Your task to perform on an android device: Open sound settings Image 0: 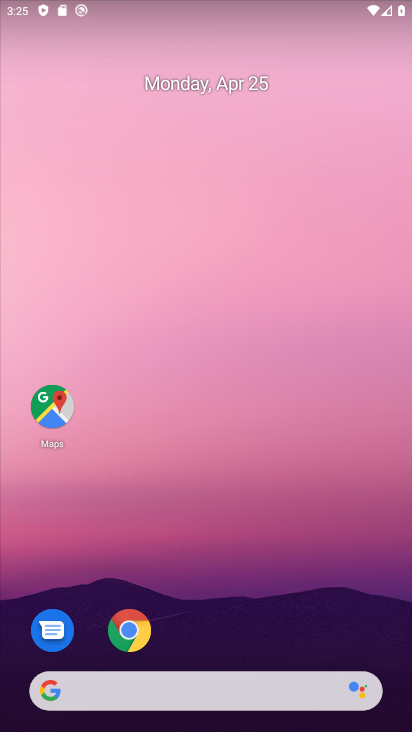
Step 0: drag from (206, 582) to (233, 103)
Your task to perform on an android device: Open sound settings Image 1: 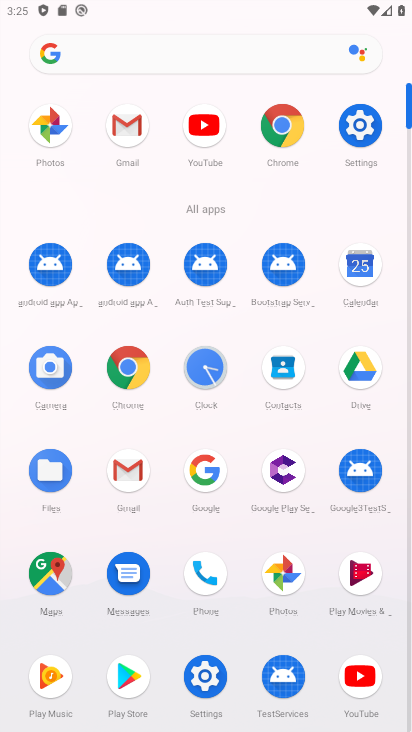
Step 1: click (370, 141)
Your task to perform on an android device: Open sound settings Image 2: 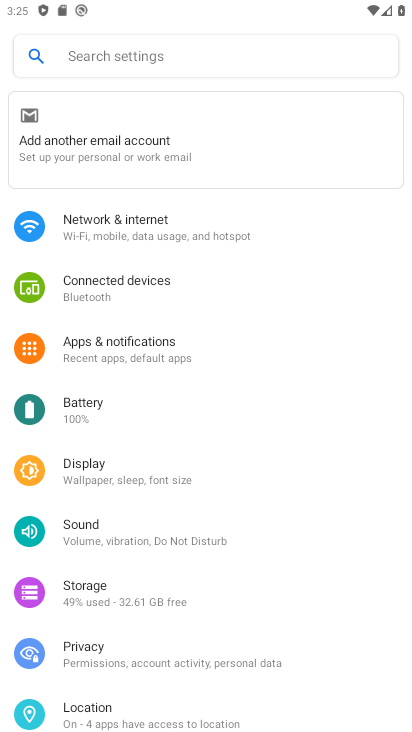
Step 2: click (108, 536)
Your task to perform on an android device: Open sound settings Image 3: 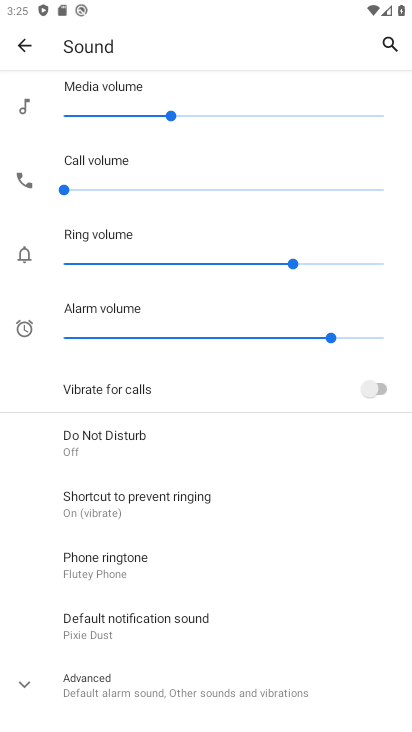
Step 3: task complete